Your task to perform on an android device: open a new tab in the chrome app Image 0: 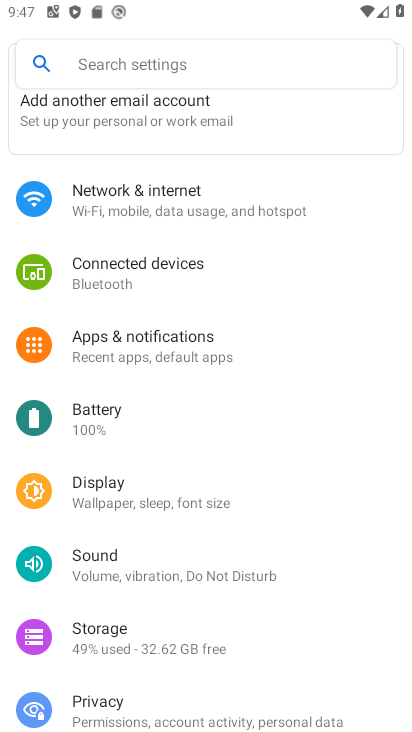
Step 0: press home button
Your task to perform on an android device: open a new tab in the chrome app Image 1: 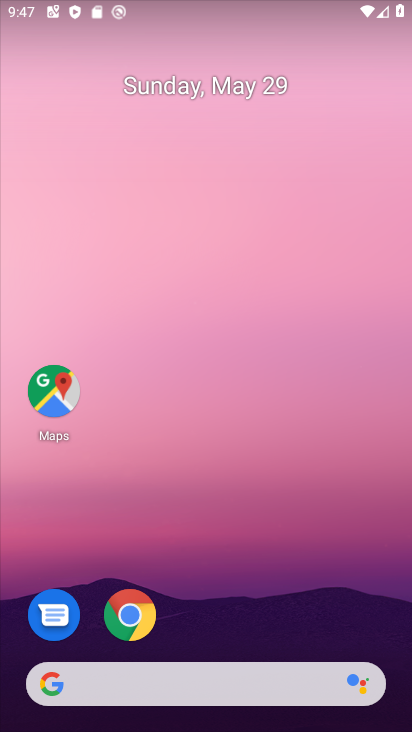
Step 1: click (129, 627)
Your task to perform on an android device: open a new tab in the chrome app Image 2: 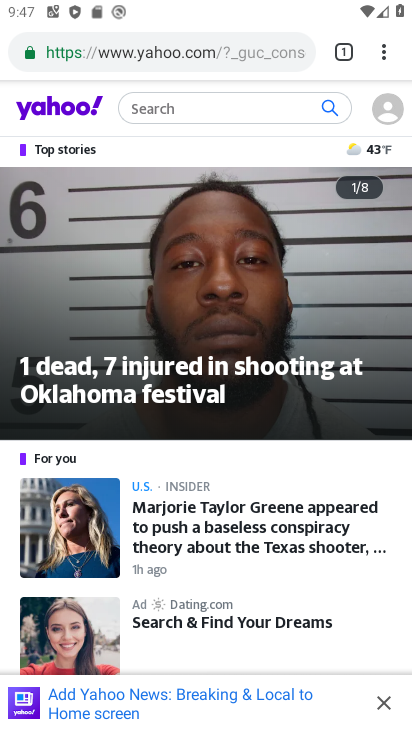
Step 2: click (337, 58)
Your task to perform on an android device: open a new tab in the chrome app Image 3: 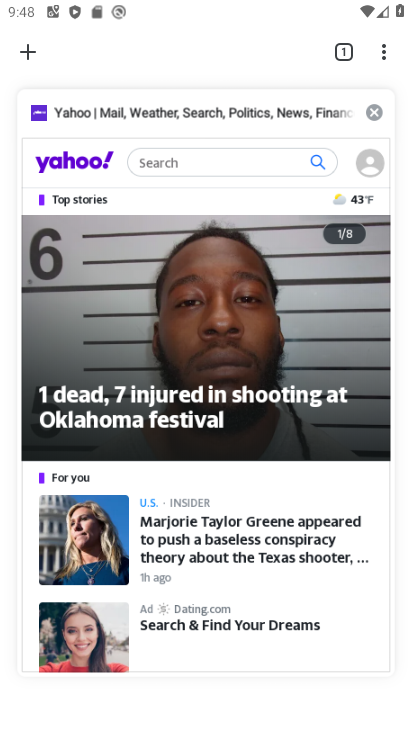
Step 3: click (33, 53)
Your task to perform on an android device: open a new tab in the chrome app Image 4: 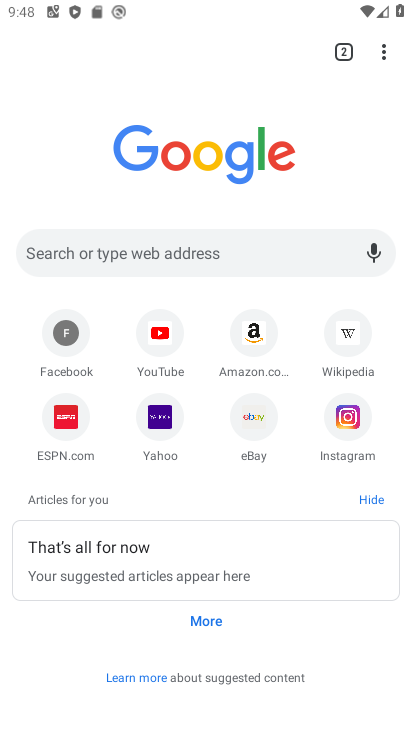
Step 4: task complete